Your task to perform on an android device: Is it going to rain tomorrow? Image 0: 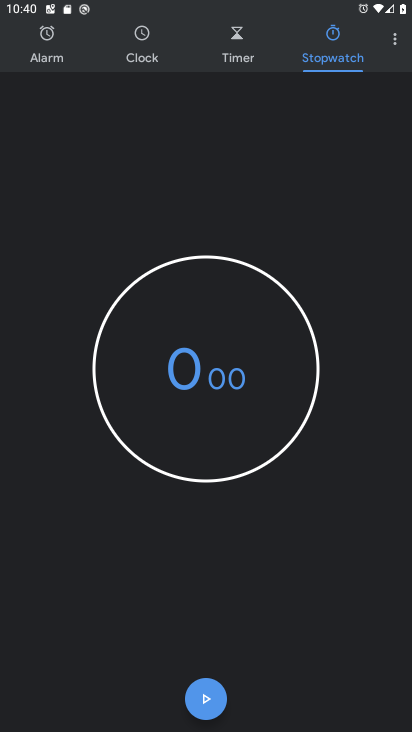
Step 0: press home button
Your task to perform on an android device: Is it going to rain tomorrow? Image 1: 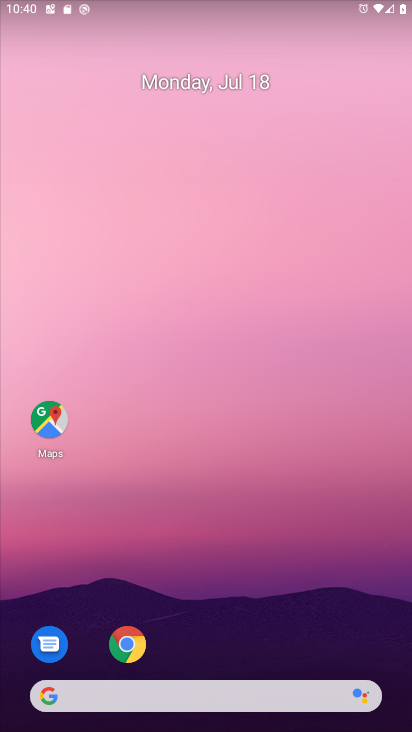
Step 1: drag from (217, 654) to (225, 178)
Your task to perform on an android device: Is it going to rain tomorrow? Image 2: 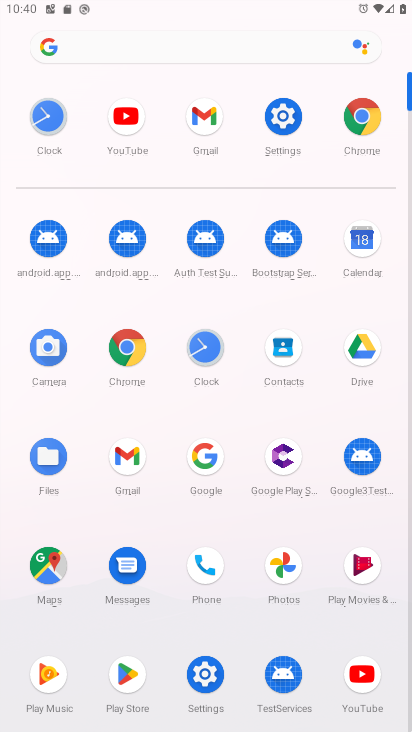
Step 2: click (193, 50)
Your task to perform on an android device: Is it going to rain tomorrow? Image 3: 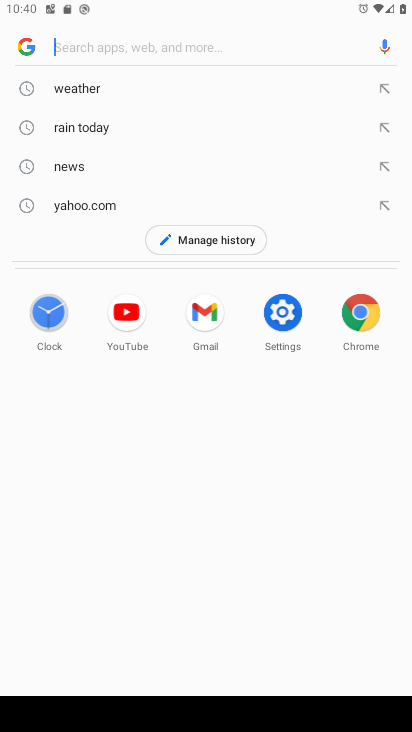
Step 3: click (173, 85)
Your task to perform on an android device: Is it going to rain tomorrow? Image 4: 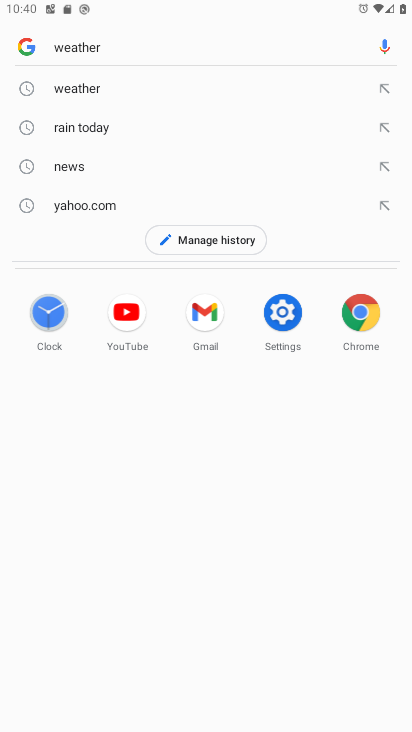
Step 4: task complete